Your task to perform on an android device: Search for sushi restaurants on Maps Image 0: 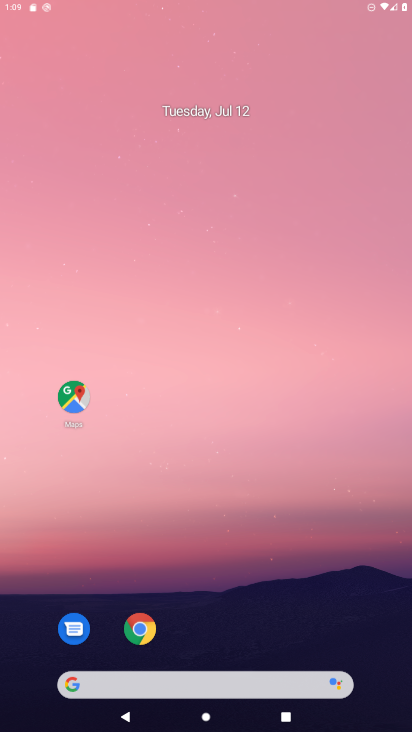
Step 0: press home button
Your task to perform on an android device: Search for sushi restaurants on Maps Image 1: 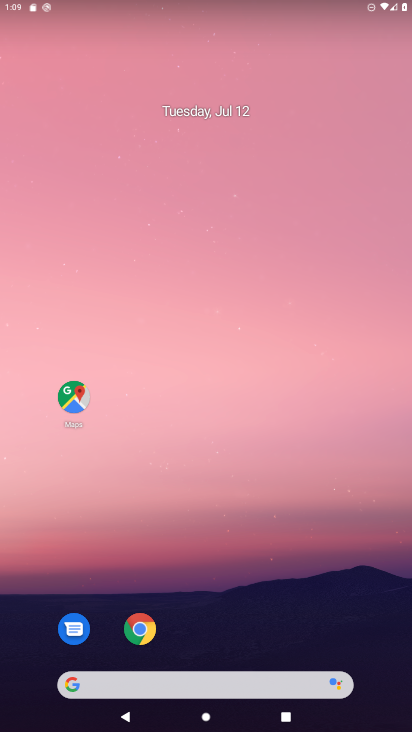
Step 1: click (74, 392)
Your task to perform on an android device: Search for sushi restaurants on Maps Image 2: 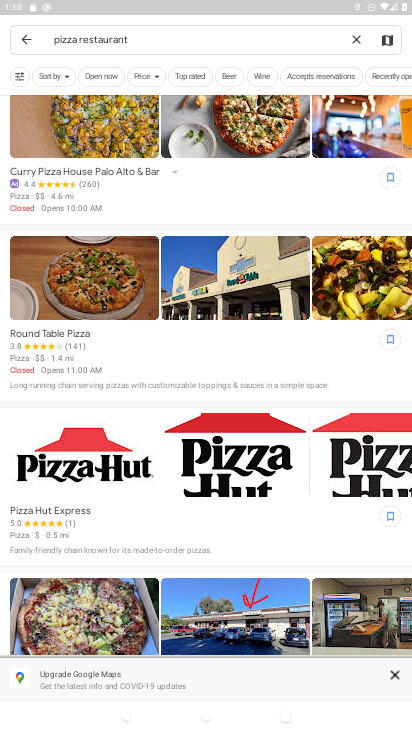
Step 2: click (354, 37)
Your task to perform on an android device: Search for sushi restaurants on Maps Image 3: 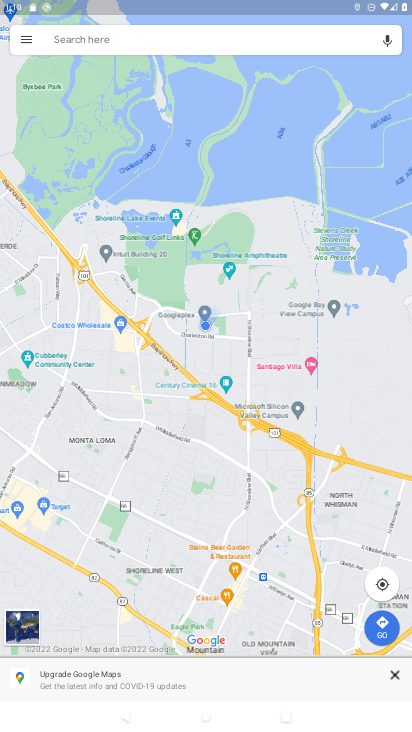
Step 3: type "sushi"
Your task to perform on an android device: Search for sushi restaurants on Maps Image 4: 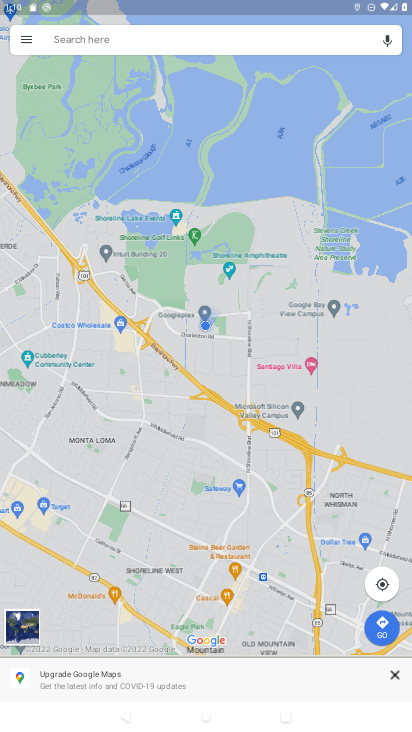
Step 4: type ""
Your task to perform on an android device: Search for sushi restaurants on Maps Image 5: 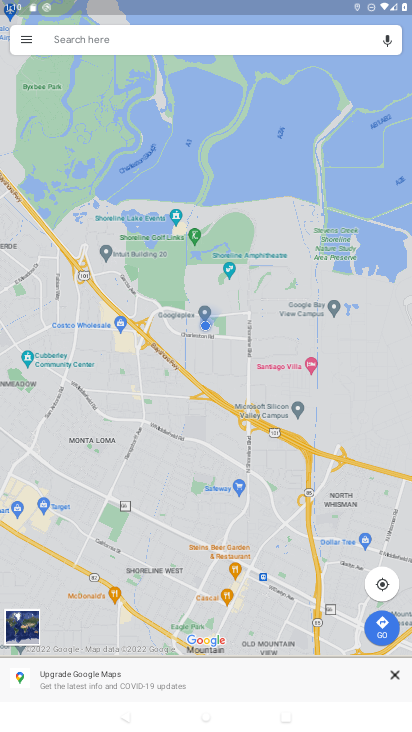
Step 5: click (108, 32)
Your task to perform on an android device: Search for sushi restaurants on Maps Image 6: 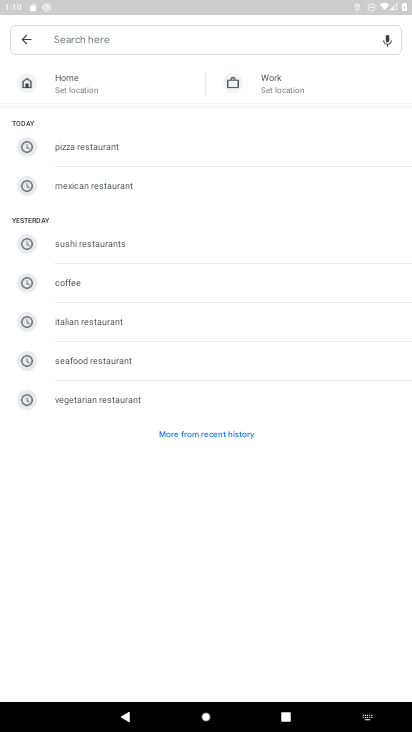
Step 6: click (77, 245)
Your task to perform on an android device: Search for sushi restaurants on Maps Image 7: 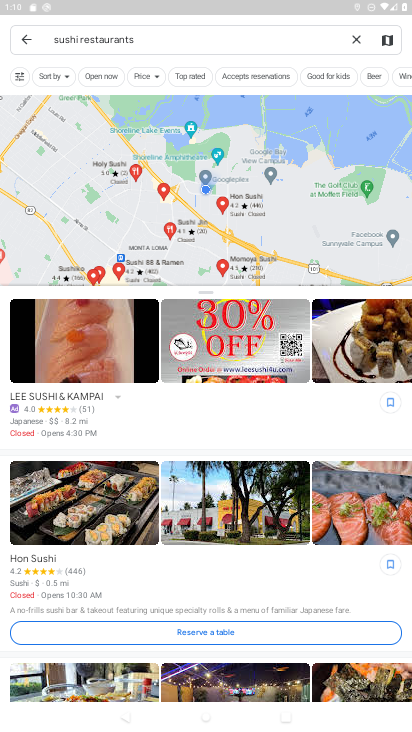
Step 7: task complete